Your task to perform on an android device: turn on improve location accuracy Image 0: 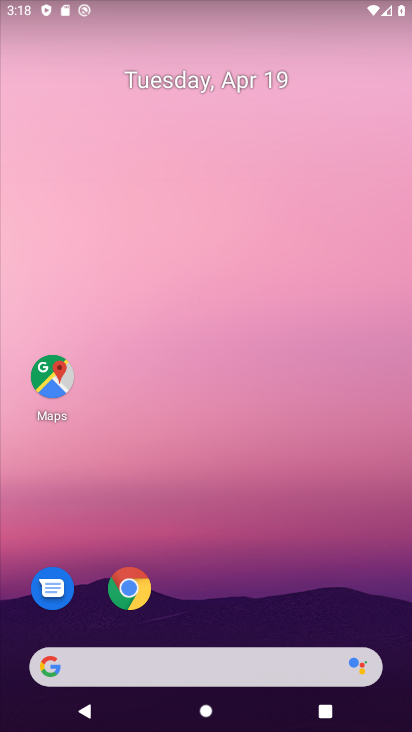
Step 0: drag from (222, 590) to (136, 35)
Your task to perform on an android device: turn on improve location accuracy Image 1: 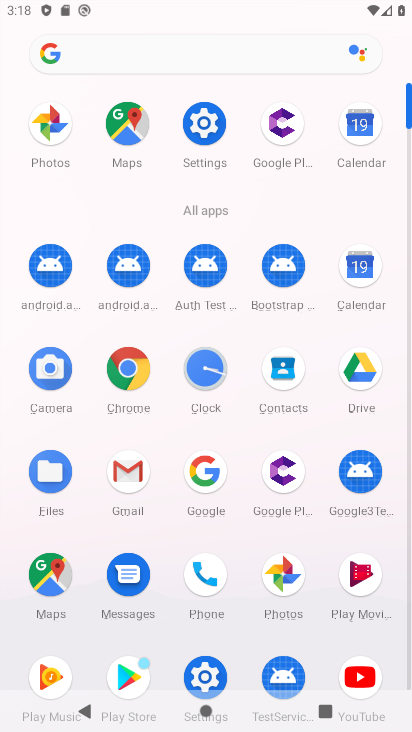
Step 1: click (204, 135)
Your task to perform on an android device: turn on improve location accuracy Image 2: 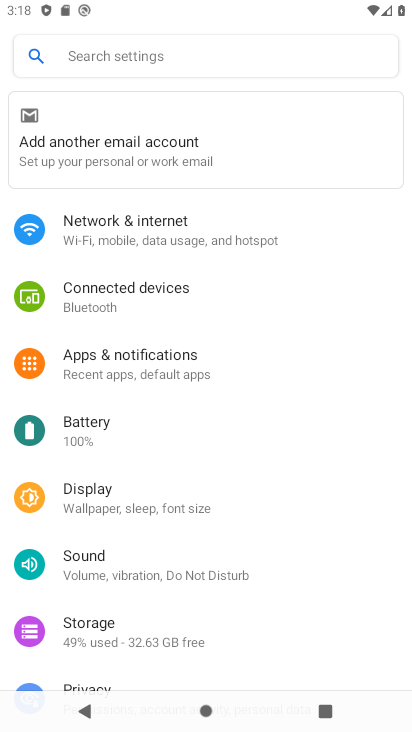
Step 2: drag from (209, 596) to (207, 225)
Your task to perform on an android device: turn on improve location accuracy Image 3: 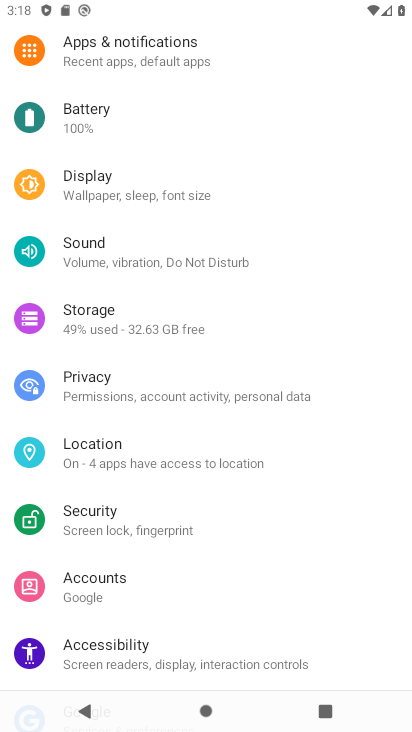
Step 3: click (189, 437)
Your task to perform on an android device: turn on improve location accuracy Image 4: 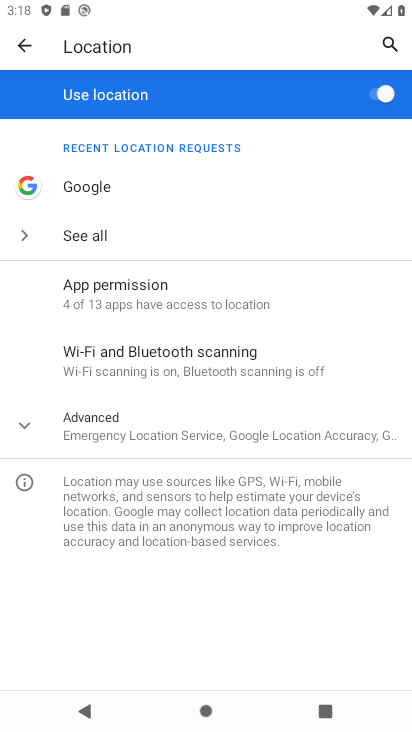
Step 4: click (163, 437)
Your task to perform on an android device: turn on improve location accuracy Image 5: 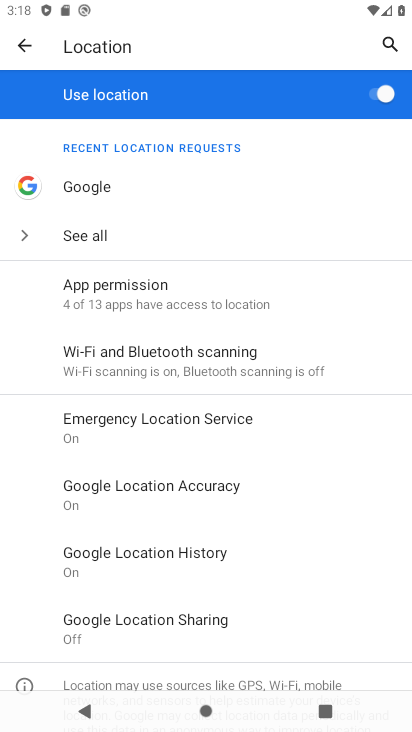
Step 5: click (219, 492)
Your task to perform on an android device: turn on improve location accuracy Image 6: 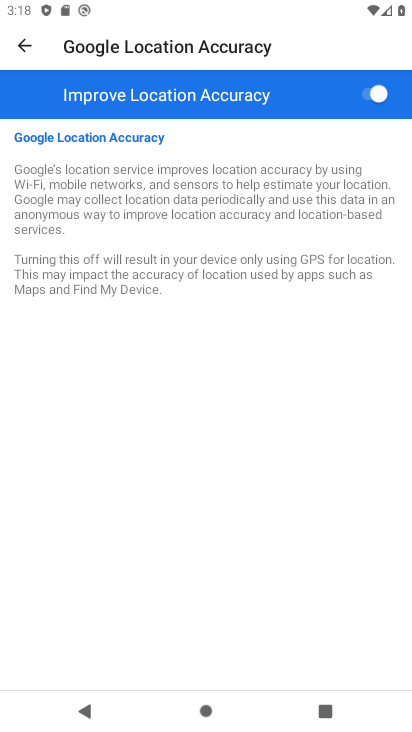
Step 6: task complete